Your task to perform on an android device: change text size in settings app Image 0: 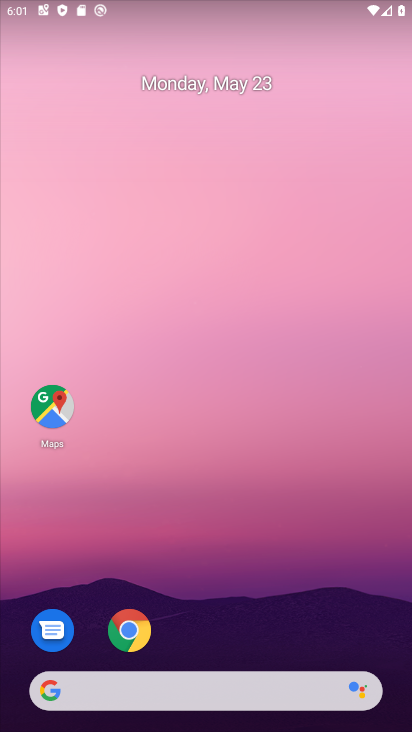
Step 0: drag from (245, 580) to (216, 0)
Your task to perform on an android device: change text size in settings app Image 1: 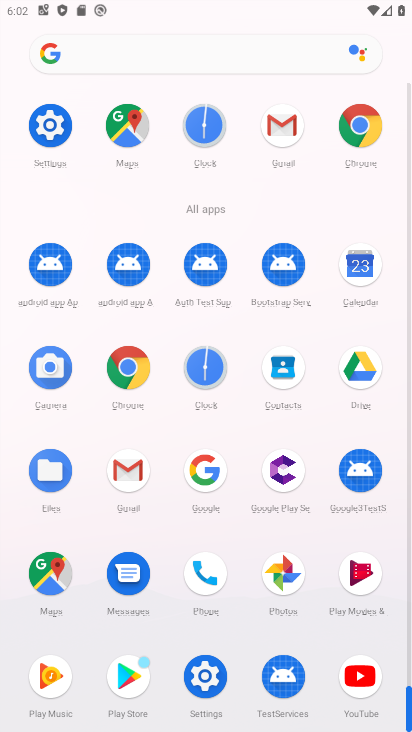
Step 1: drag from (7, 548) to (18, 191)
Your task to perform on an android device: change text size in settings app Image 2: 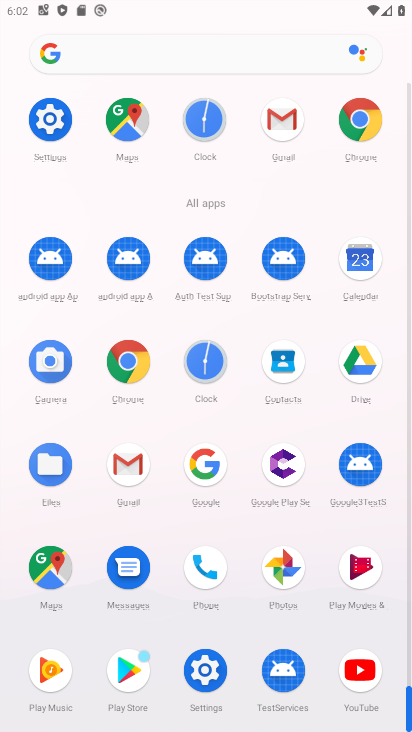
Step 2: click (207, 666)
Your task to perform on an android device: change text size in settings app Image 3: 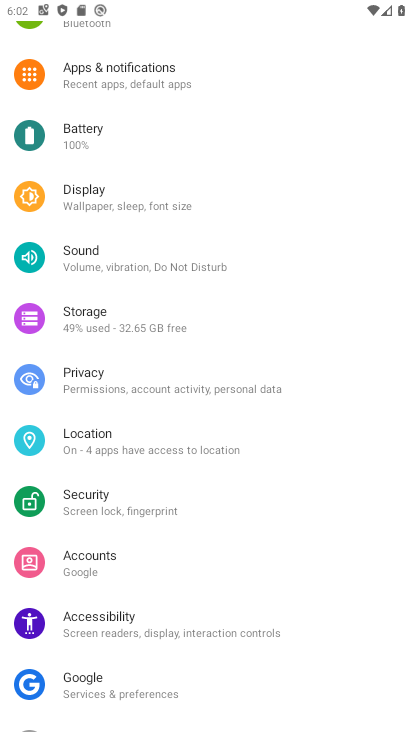
Step 3: click (160, 197)
Your task to perform on an android device: change text size in settings app Image 4: 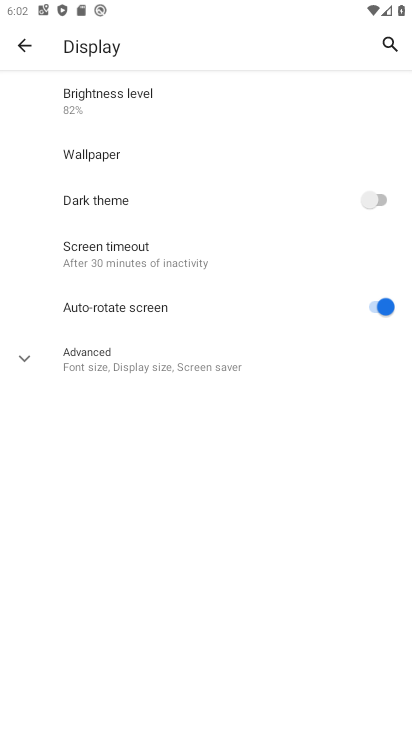
Step 4: click (121, 364)
Your task to perform on an android device: change text size in settings app Image 5: 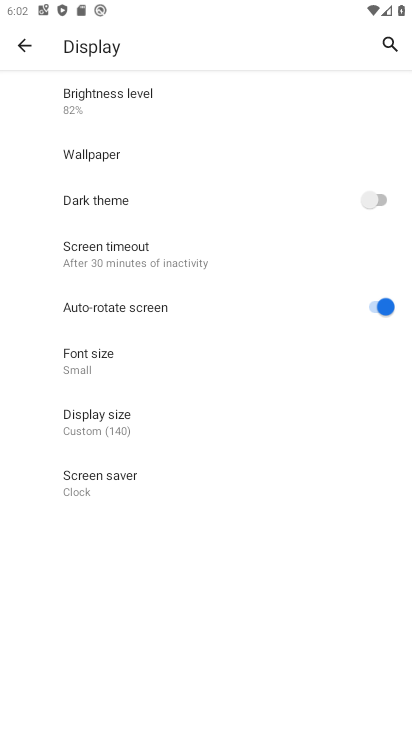
Step 5: click (118, 362)
Your task to perform on an android device: change text size in settings app Image 6: 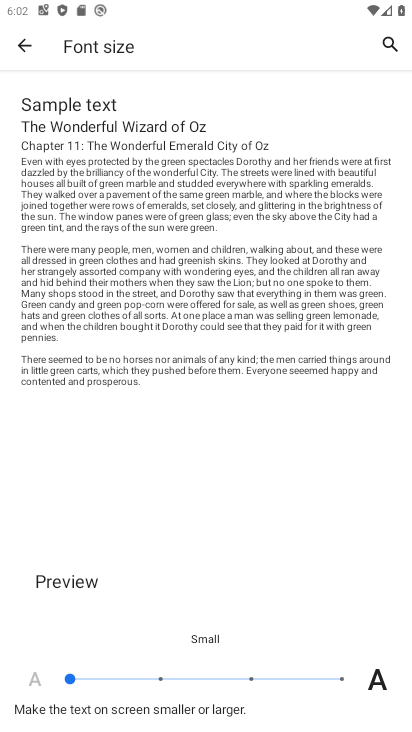
Step 6: click (334, 679)
Your task to perform on an android device: change text size in settings app Image 7: 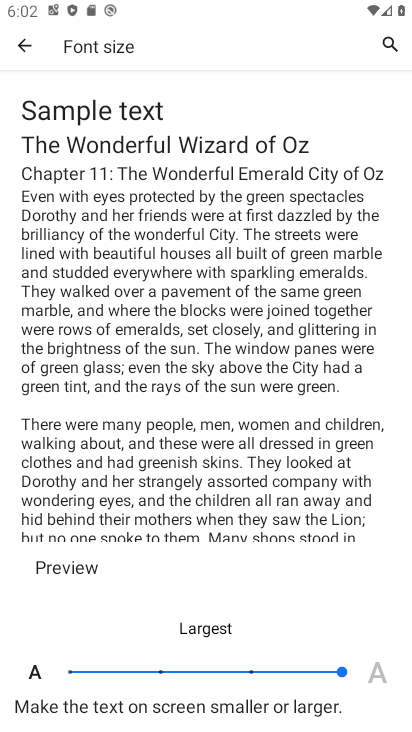
Step 7: task complete